Your task to perform on an android device: change the clock style Image 0: 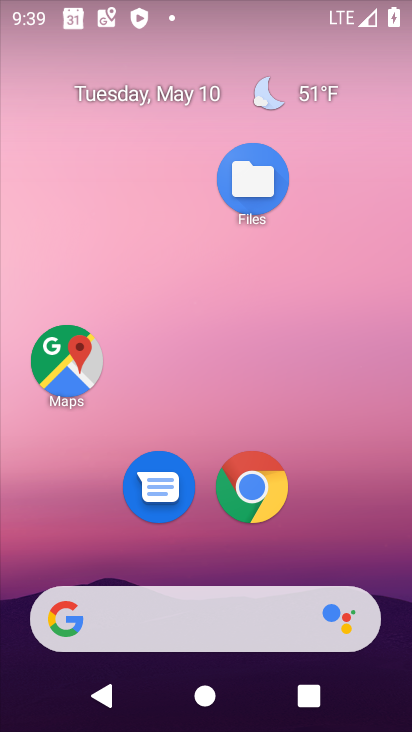
Step 0: drag from (205, 549) to (207, 115)
Your task to perform on an android device: change the clock style Image 1: 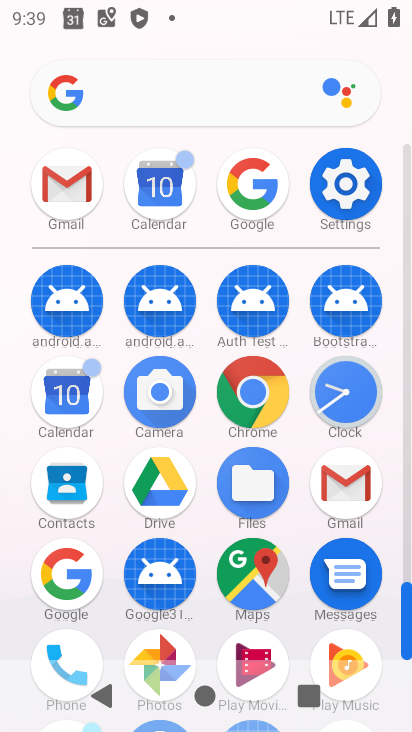
Step 1: click (342, 398)
Your task to perform on an android device: change the clock style Image 2: 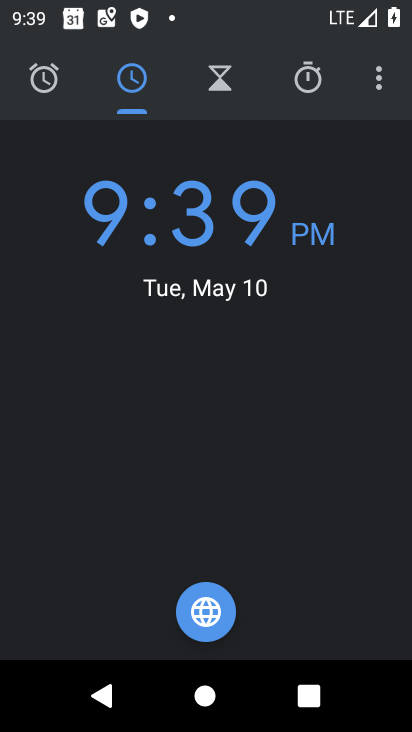
Step 2: click (376, 72)
Your task to perform on an android device: change the clock style Image 3: 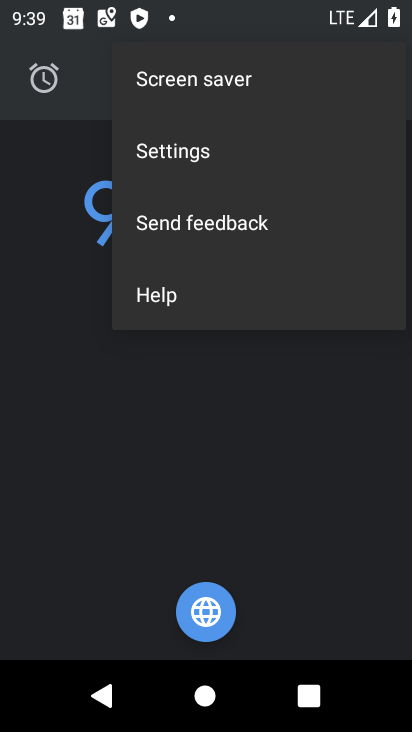
Step 3: click (206, 145)
Your task to perform on an android device: change the clock style Image 4: 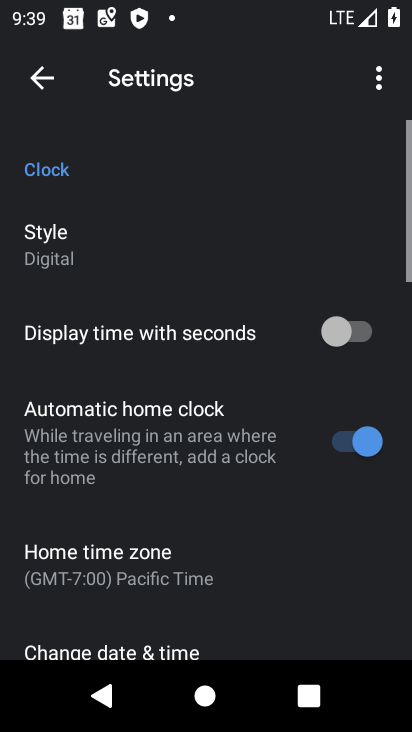
Step 4: click (100, 242)
Your task to perform on an android device: change the clock style Image 5: 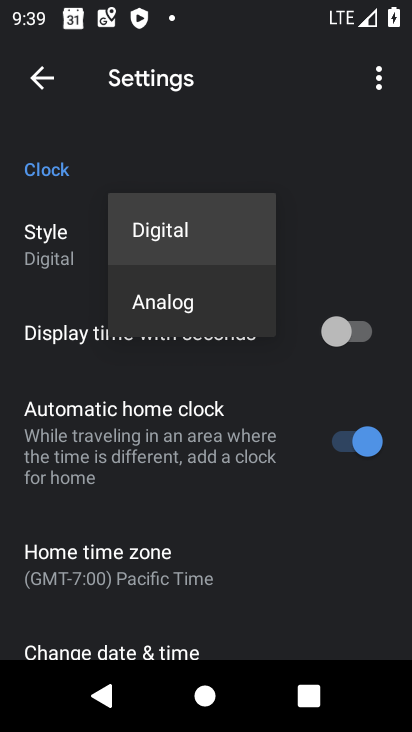
Step 5: click (166, 305)
Your task to perform on an android device: change the clock style Image 6: 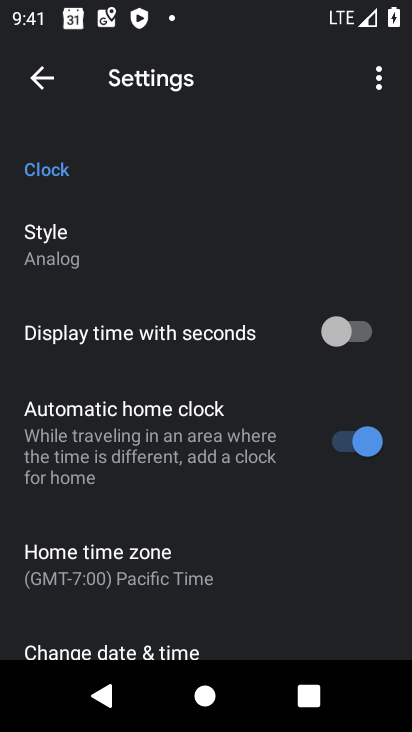
Step 6: task complete